Your task to perform on an android device: Add usb-c to the cart on ebay.com, then select checkout. Image 0: 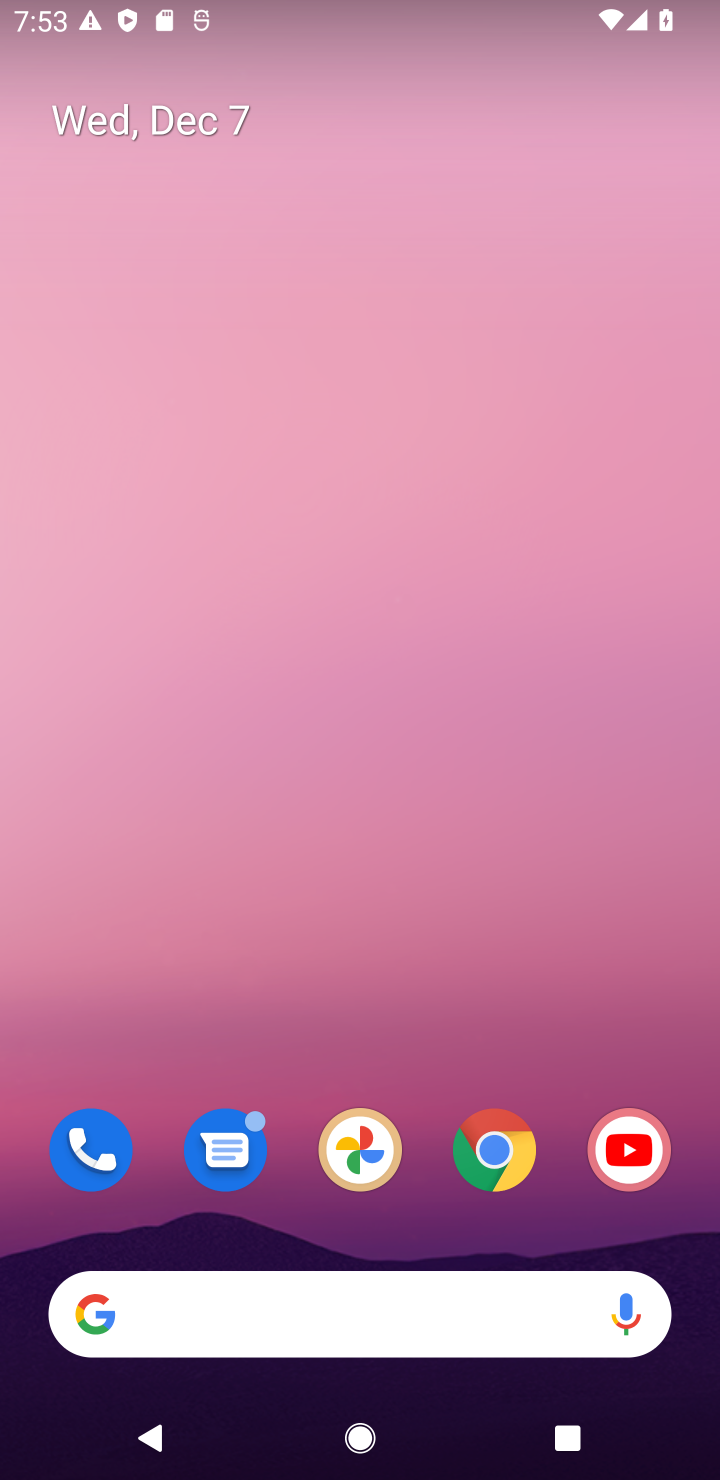
Step 0: task complete